Your task to perform on an android device: Search for flights from Barcelona to Boston Image 0: 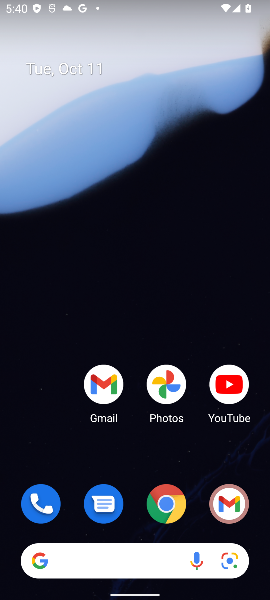
Step 0: click (132, 551)
Your task to perform on an android device: Search for flights from Barcelona to Boston Image 1: 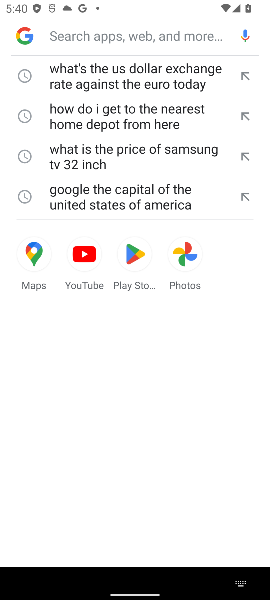
Step 1: click (75, 31)
Your task to perform on an android device: Search for flights from Barcelona to Boston Image 2: 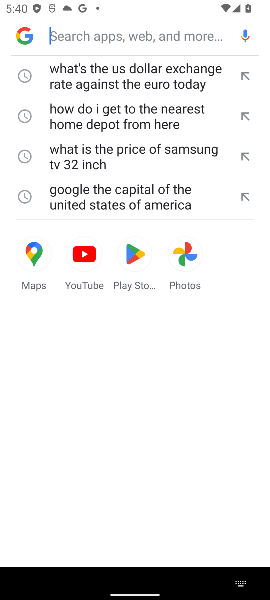
Step 2: type "flights from Barcelona to Boston"
Your task to perform on an android device: Search for flights from Barcelona to Boston Image 3: 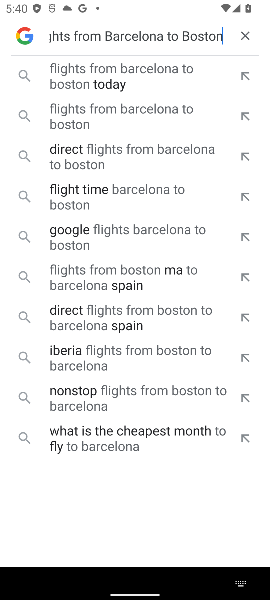
Step 3: click (108, 84)
Your task to perform on an android device: Search for flights from Barcelona to Boston Image 4: 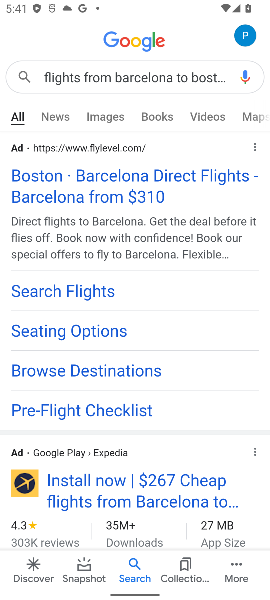
Step 4: task complete